Your task to perform on an android device: allow notifications from all sites in the chrome app Image 0: 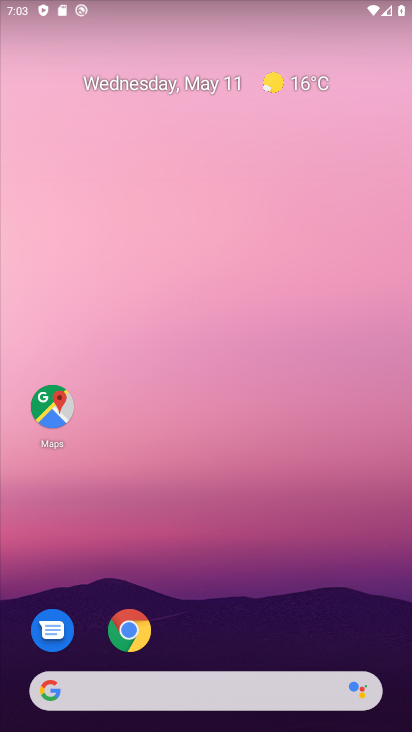
Step 0: drag from (318, 589) to (395, 14)
Your task to perform on an android device: allow notifications from all sites in the chrome app Image 1: 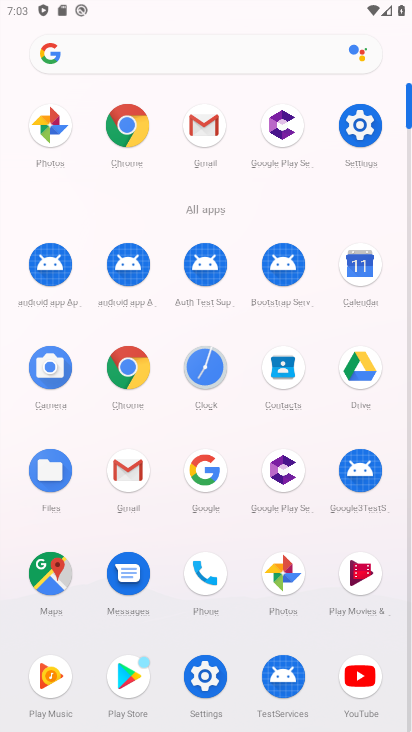
Step 1: click (125, 130)
Your task to perform on an android device: allow notifications from all sites in the chrome app Image 2: 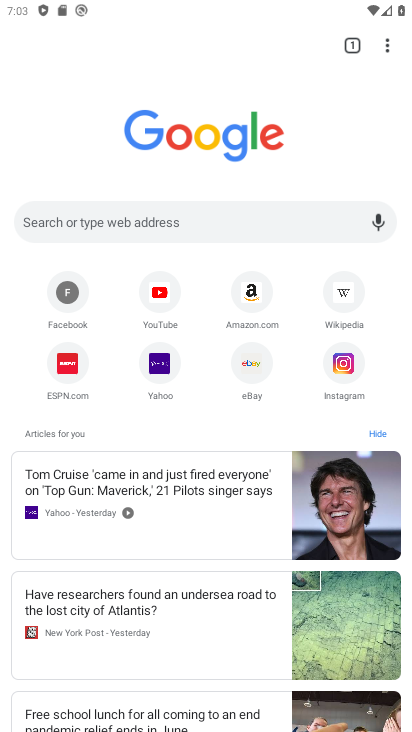
Step 2: drag from (380, 42) to (238, 392)
Your task to perform on an android device: allow notifications from all sites in the chrome app Image 3: 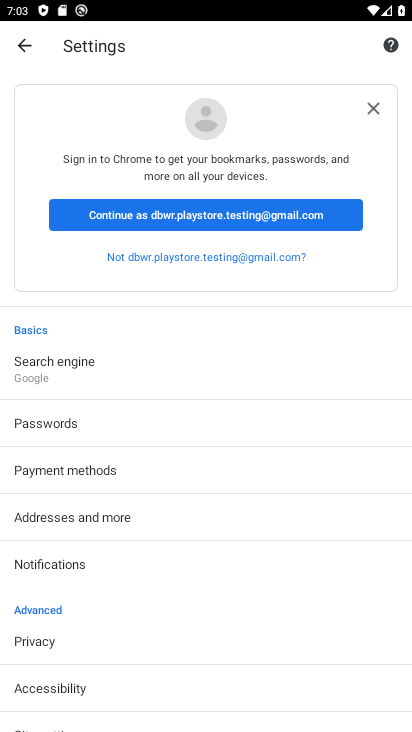
Step 3: drag from (154, 610) to (173, 235)
Your task to perform on an android device: allow notifications from all sites in the chrome app Image 4: 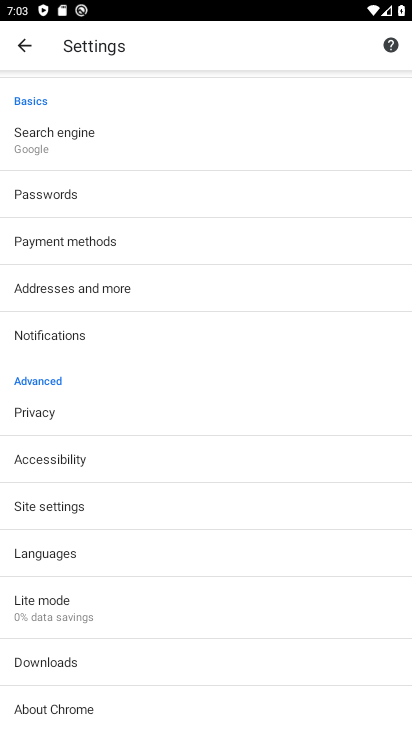
Step 4: click (99, 502)
Your task to perform on an android device: allow notifications from all sites in the chrome app Image 5: 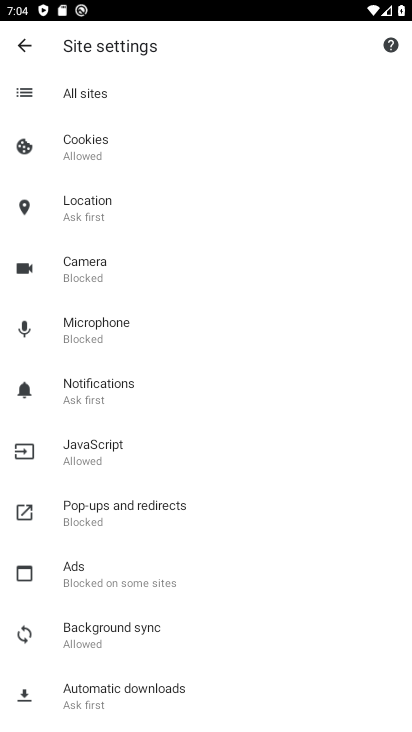
Step 5: click (75, 394)
Your task to perform on an android device: allow notifications from all sites in the chrome app Image 6: 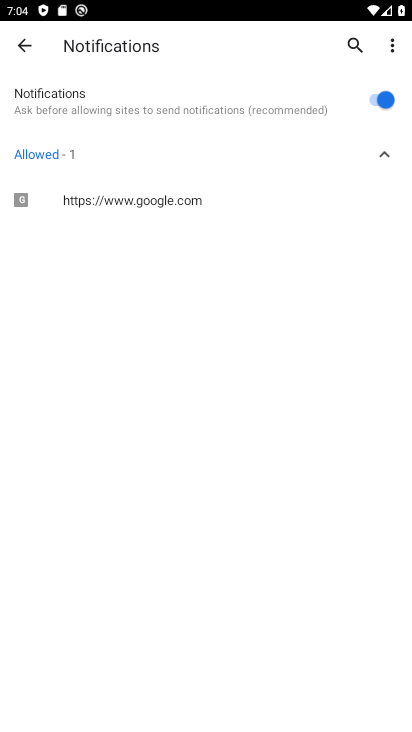
Step 6: task complete